Your task to perform on an android device: Open calendar and show me the fourth week of next month Image 0: 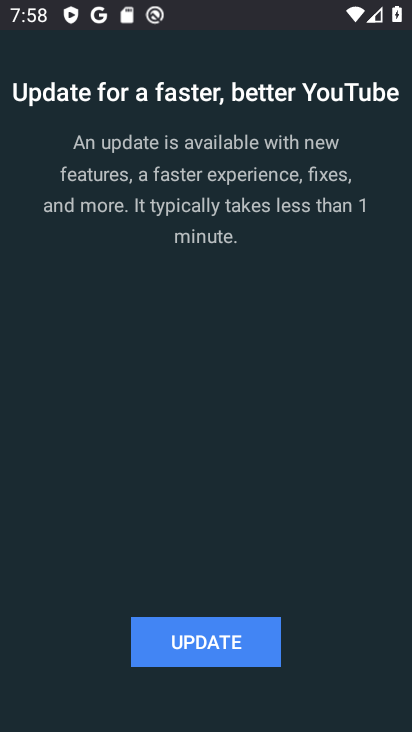
Step 0: press home button
Your task to perform on an android device: Open calendar and show me the fourth week of next month Image 1: 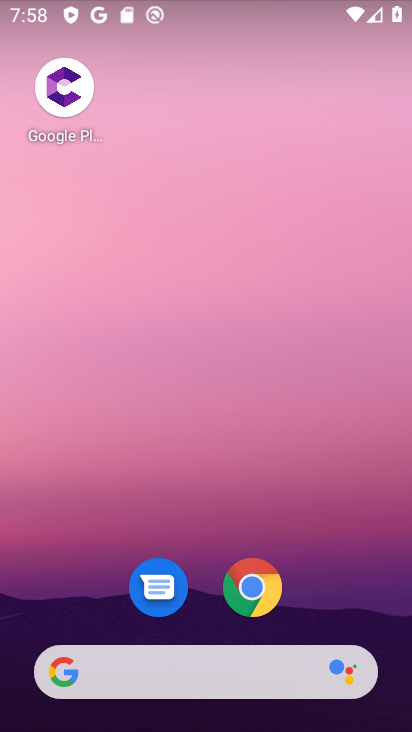
Step 1: drag from (187, 624) to (250, 62)
Your task to perform on an android device: Open calendar and show me the fourth week of next month Image 2: 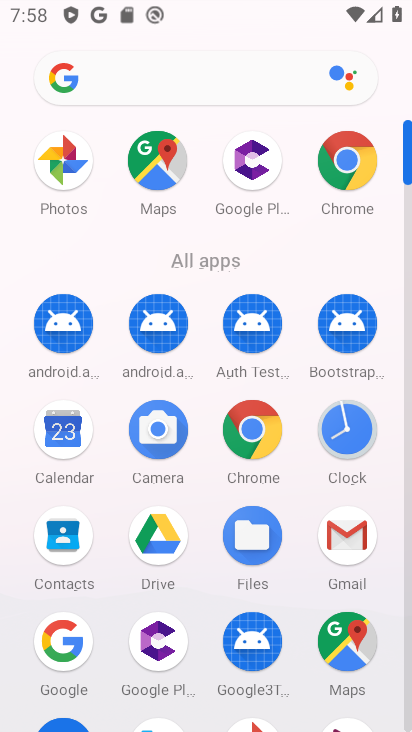
Step 2: click (62, 423)
Your task to perform on an android device: Open calendar and show me the fourth week of next month Image 3: 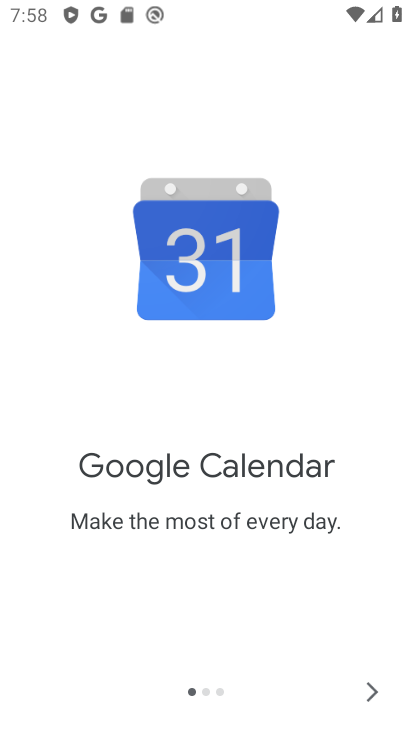
Step 3: click (372, 686)
Your task to perform on an android device: Open calendar and show me the fourth week of next month Image 4: 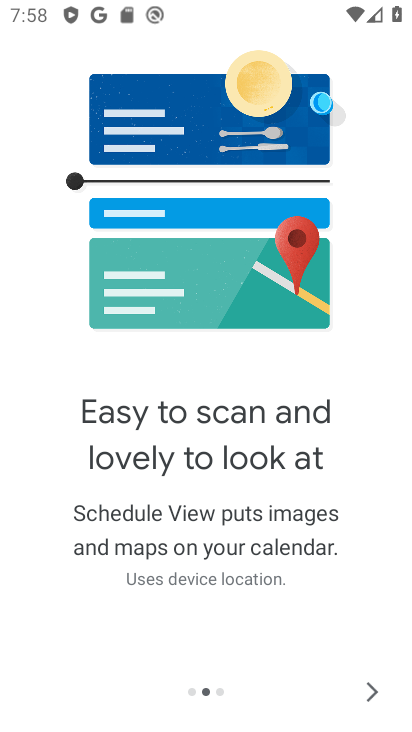
Step 4: click (374, 686)
Your task to perform on an android device: Open calendar and show me the fourth week of next month Image 5: 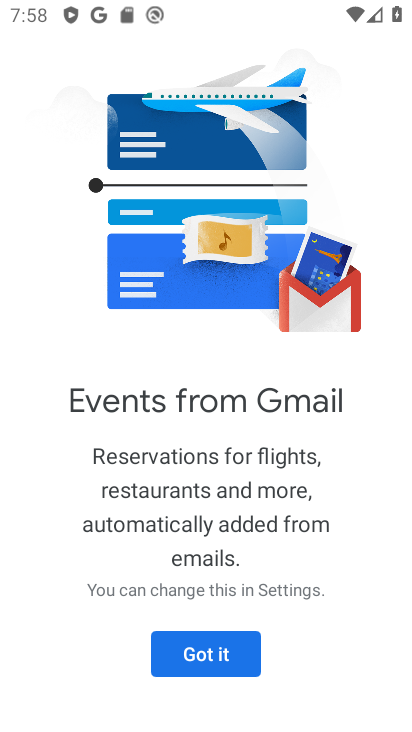
Step 5: click (375, 686)
Your task to perform on an android device: Open calendar and show me the fourth week of next month Image 6: 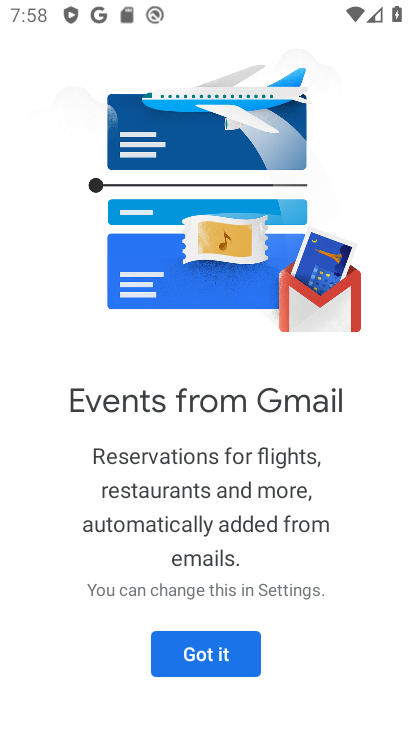
Step 6: click (212, 643)
Your task to perform on an android device: Open calendar and show me the fourth week of next month Image 7: 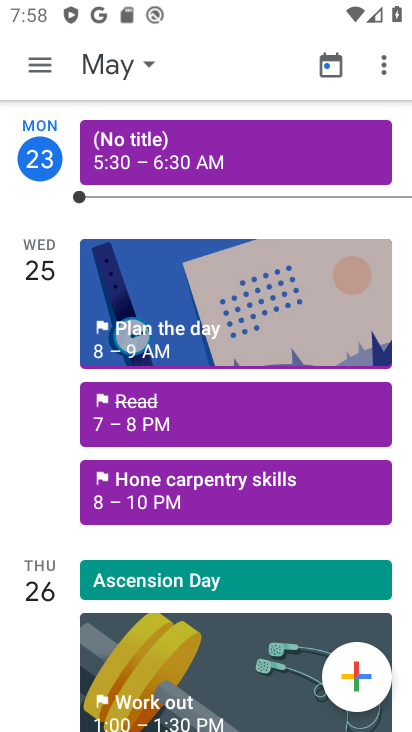
Step 7: click (134, 64)
Your task to perform on an android device: Open calendar and show me the fourth week of next month Image 8: 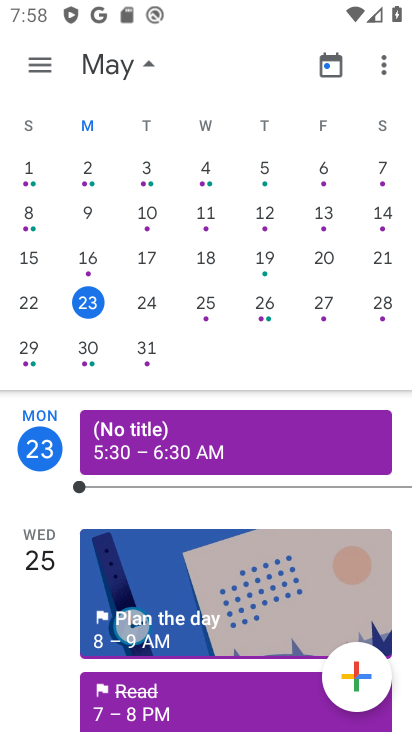
Step 8: drag from (359, 265) to (19, 265)
Your task to perform on an android device: Open calendar and show me the fourth week of next month Image 9: 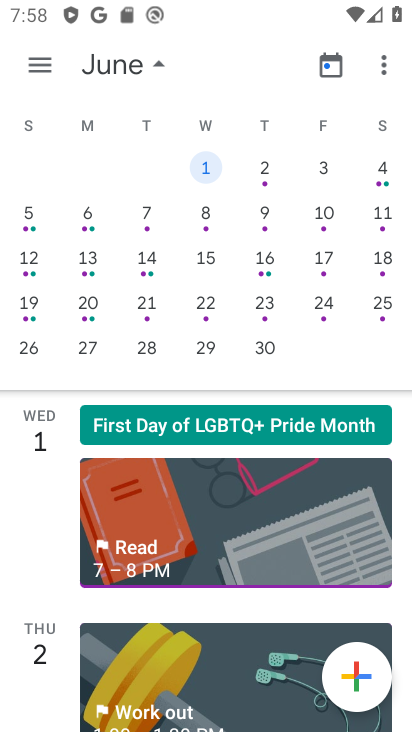
Step 9: click (88, 302)
Your task to perform on an android device: Open calendar and show me the fourth week of next month Image 10: 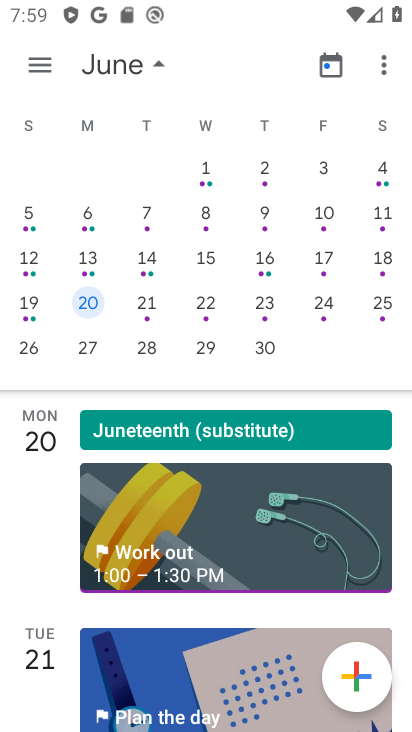
Step 10: task complete